Your task to perform on an android device: Check the weather Image 0: 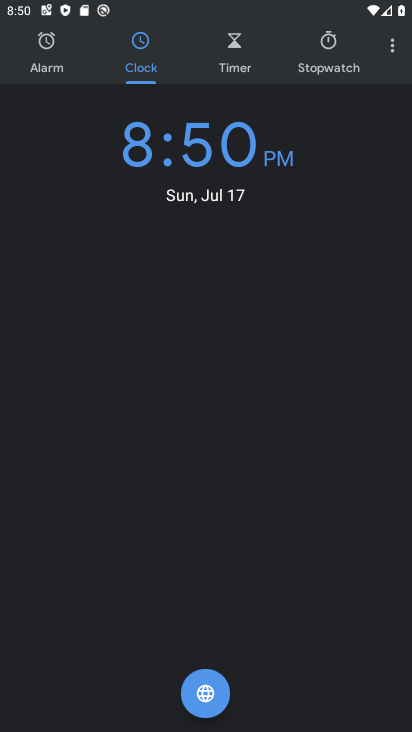
Step 0: press home button
Your task to perform on an android device: Check the weather Image 1: 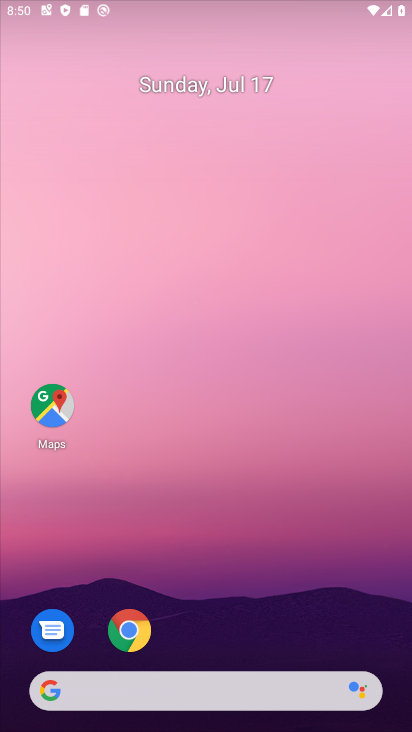
Step 1: drag from (271, 681) to (337, 50)
Your task to perform on an android device: Check the weather Image 2: 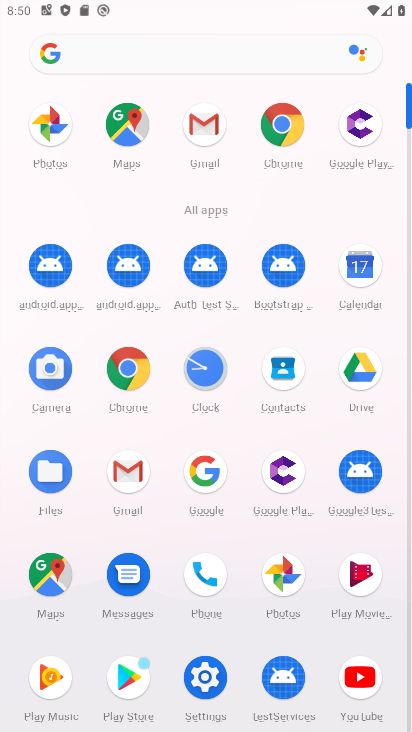
Step 2: click (119, 373)
Your task to perform on an android device: Check the weather Image 3: 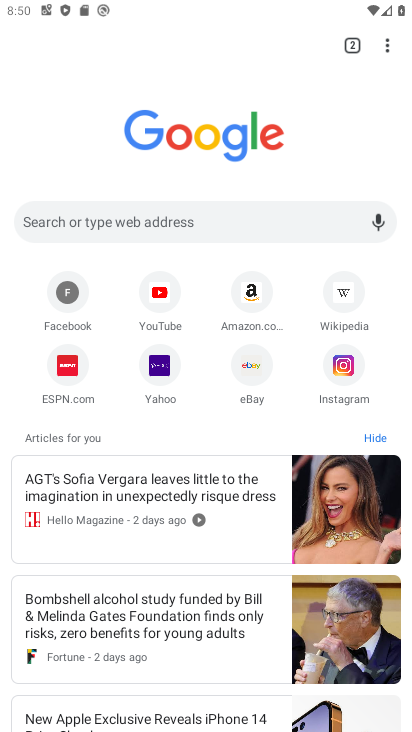
Step 3: click (226, 225)
Your task to perform on an android device: Check the weather Image 4: 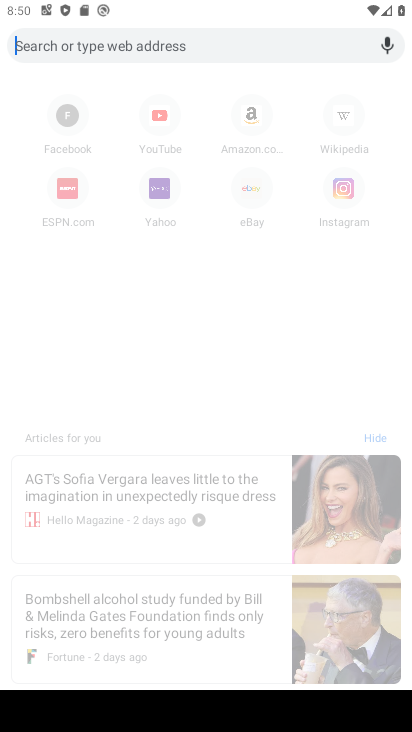
Step 4: type "check the weather"
Your task to perform on an android device: Check the weather Image 5: 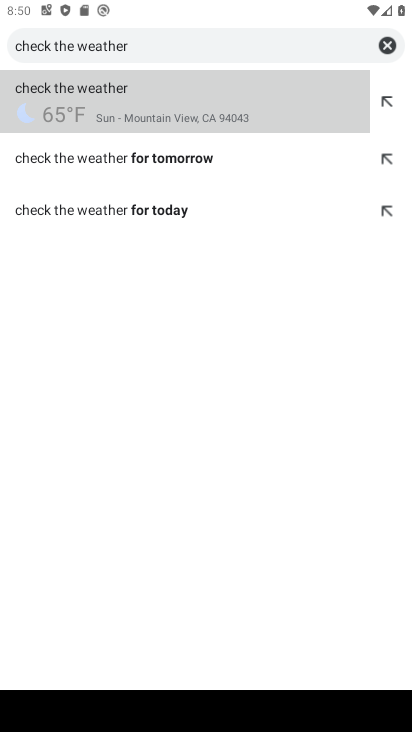
Step 5: click (79, 121)
Your task to perform on an android device: Check the weather Image 6: 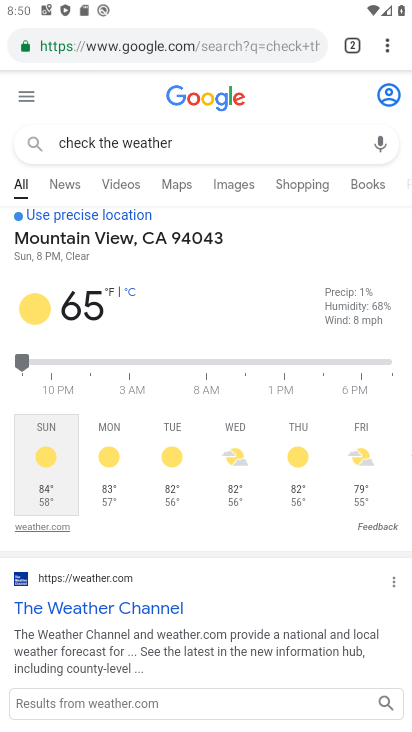
Step 6: task complete